Your task to perform on an android device: open wifi settings Image 0: 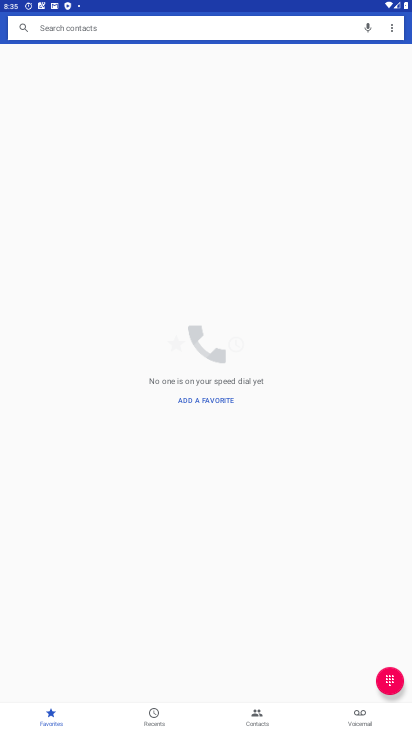
Step 0: press home button
Your task to perform on an android device: open wifi settings Image 1: 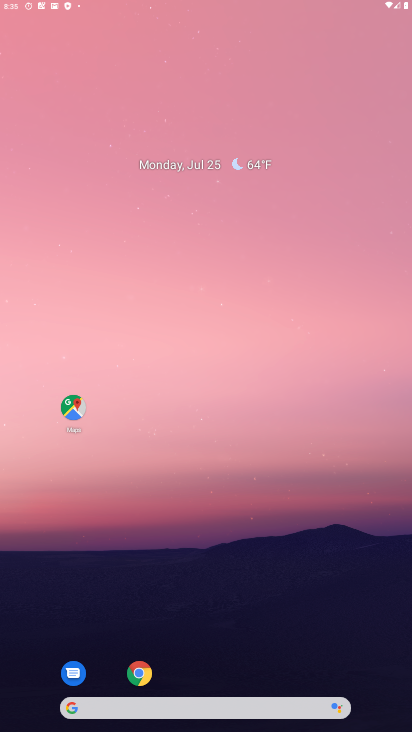
Step 1: drag from (219, 669) to (374, 32)
Your task to perform on an android device: open wifi settings Image 2: 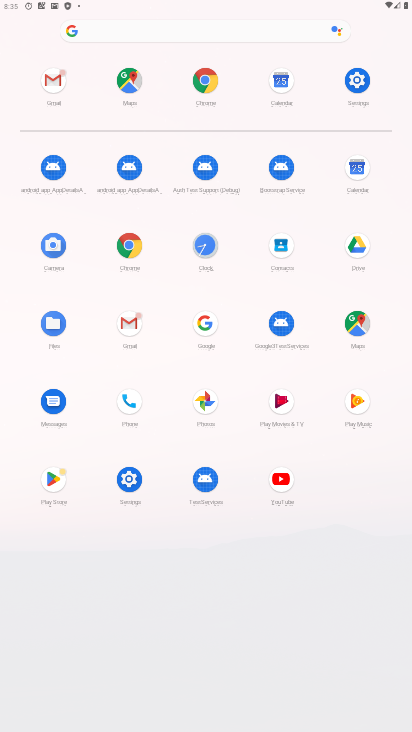
Step 2: click (349, 82)
Your task to perform on an android device: open wifi settings Image 3: 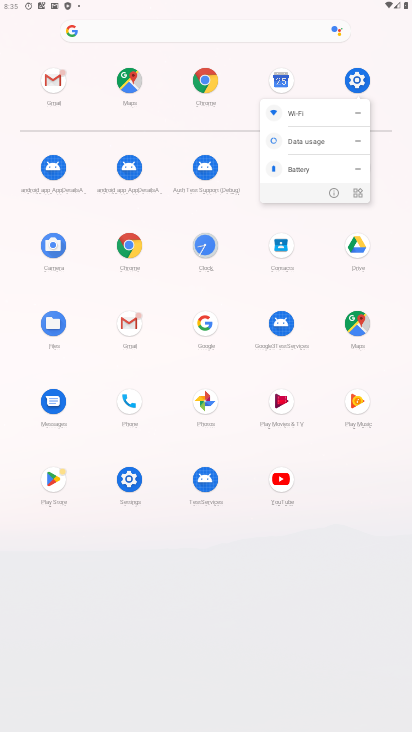
Step 3: click (292, 112)
Your task to perform on an android device: open wifi settings Image 4: 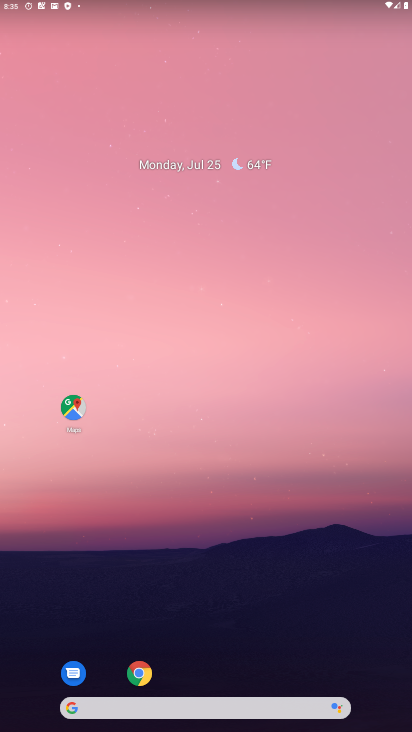
Step 4: drag from (193, 676) to (295, 165)
Your task to perform on an android device: open wifi settings Image 5: 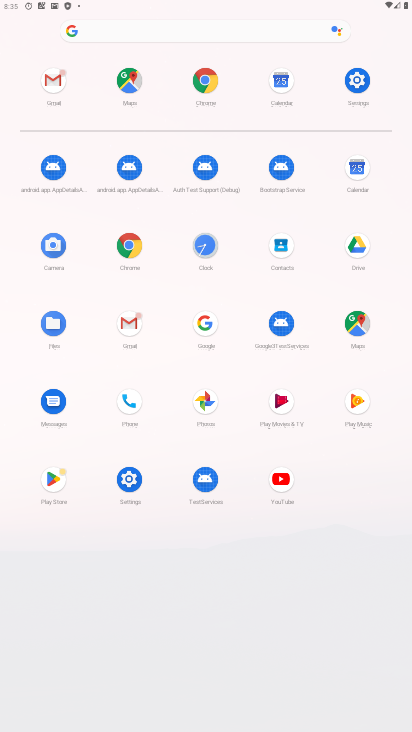
Step 5: click (326, 83)
Your task to perform on an android device: open wifi settings Image 6: 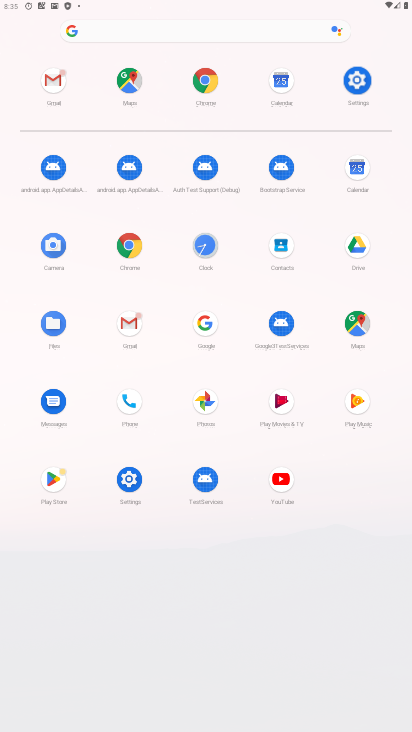
Step 6: click (351, 75)
Your task to perform on an android device: open wifi settings Image 7: 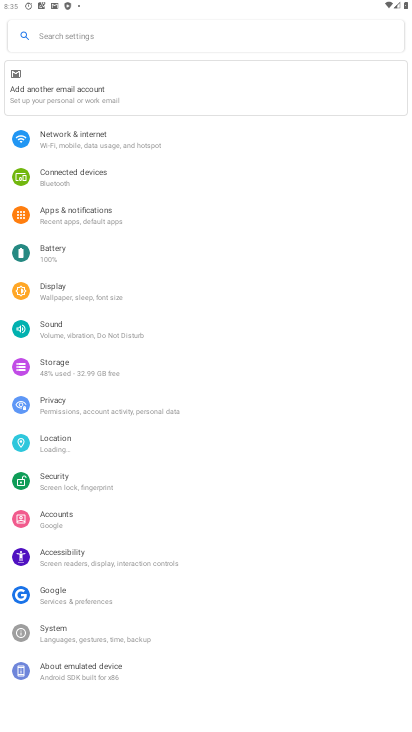
Step 7: click (76, 151)
Your task to perform on an android device: open wifi settings Image 8: 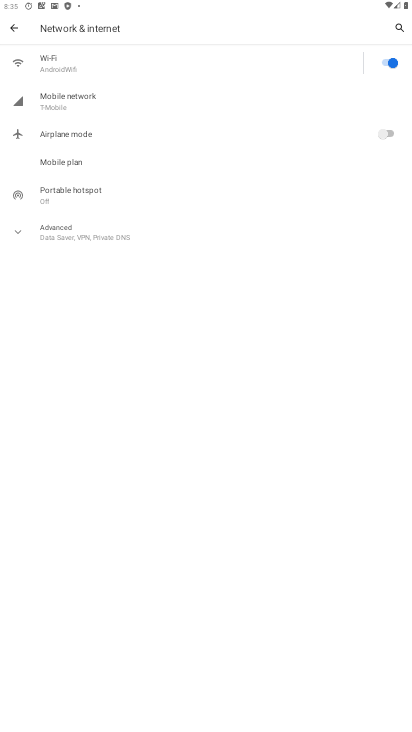
Step 8: click (75, 60)
Your task to perform on an android device: open wifi settings Image 9: 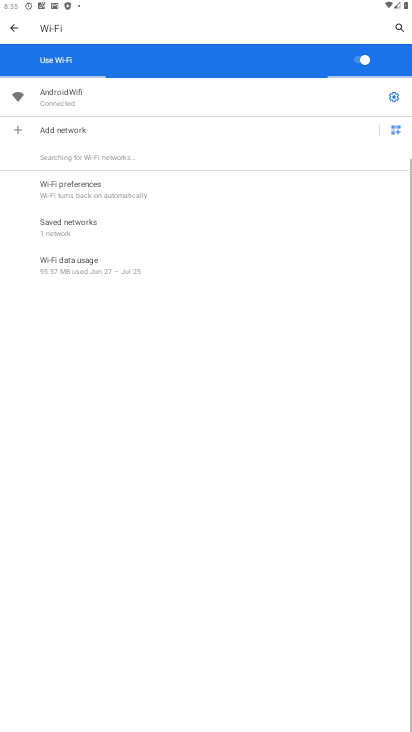
Step 9: click (394, 100)
Your task to perform on an android device: open wifi settings Image 10: 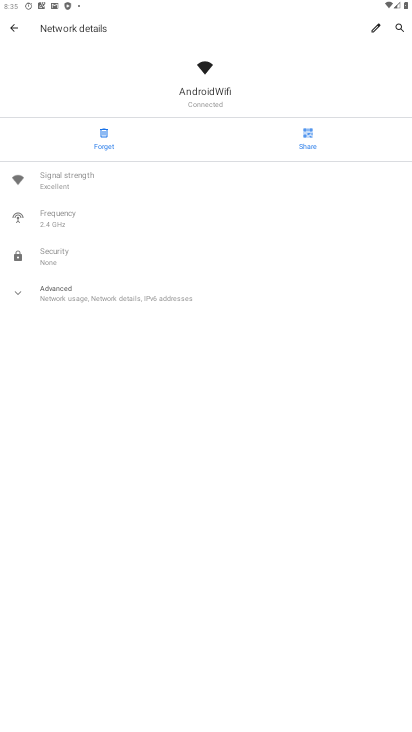
Step 10: task complete